Your task to perform on an android device: set the timer Image 0: 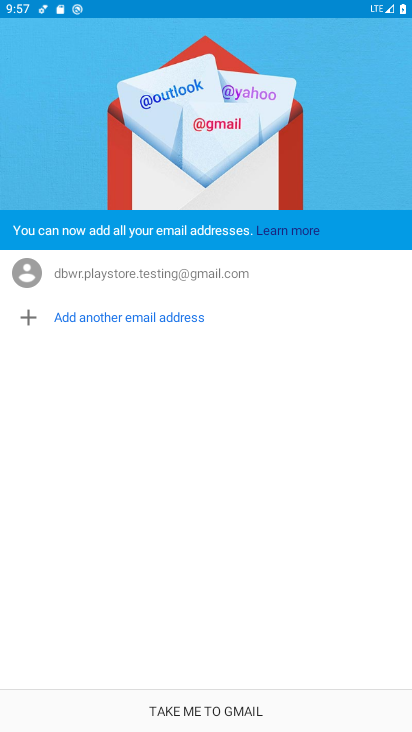
Step 0: press home button
Your task to perform on an android device: set the timer Image 1: 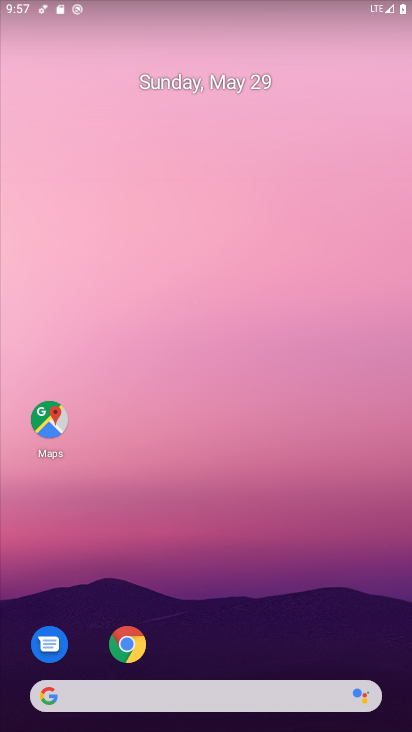
Step 1: drag from (138, 731) to (125, 58)
Your task to perform on an android device: set the timer Image 2: 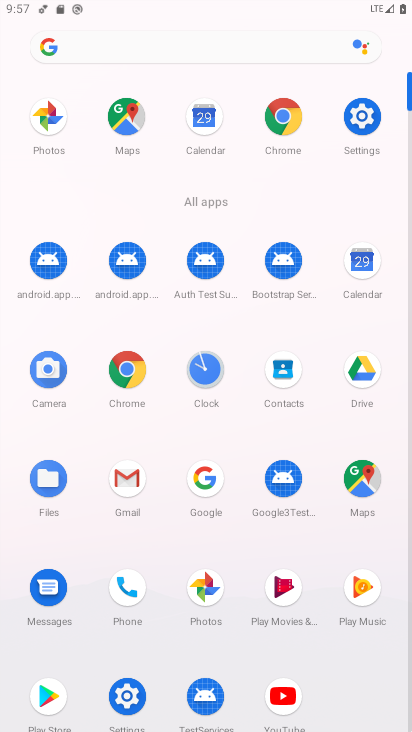
Step 2: click (198, 365)
Your task to perform on an android device: set the timer Image 3: 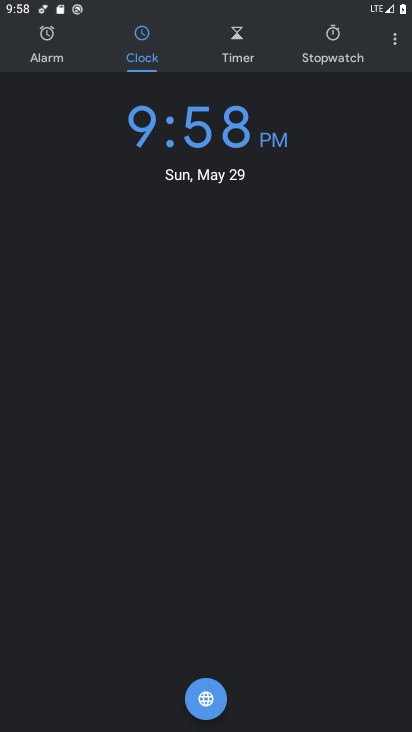
Step 3: click (243, 59)
Your task to perform on an android device: set the timer Image 4: 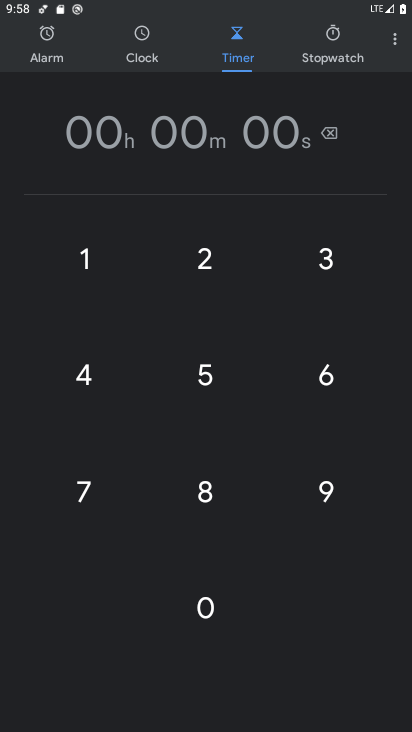
Step 4: click (91, 501)
Your task to perform on an android device: set the timer Image 5: 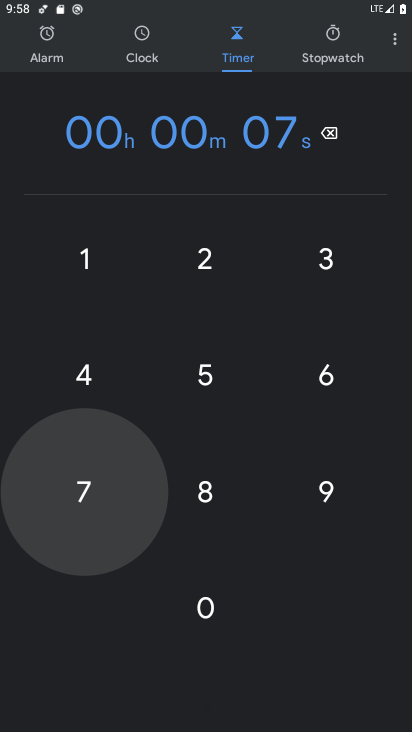
Step 5: click (201, 598)
Your task to perform on an android device: set the timer Image 6: 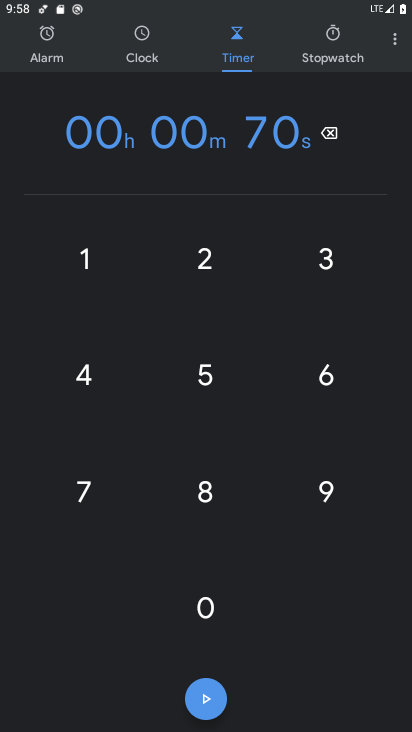
Step 6: click (197, 700)
Your task to perform on an android device: set the timer Image 7: 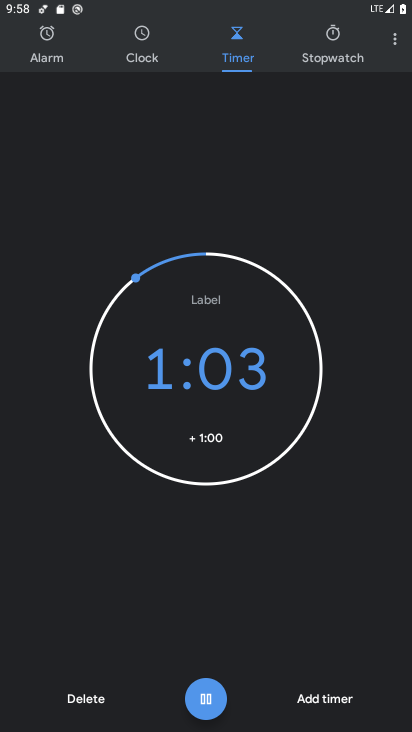
Step 7: click (218, 716)
Your task to perform on an android device: set the timer Image 8: 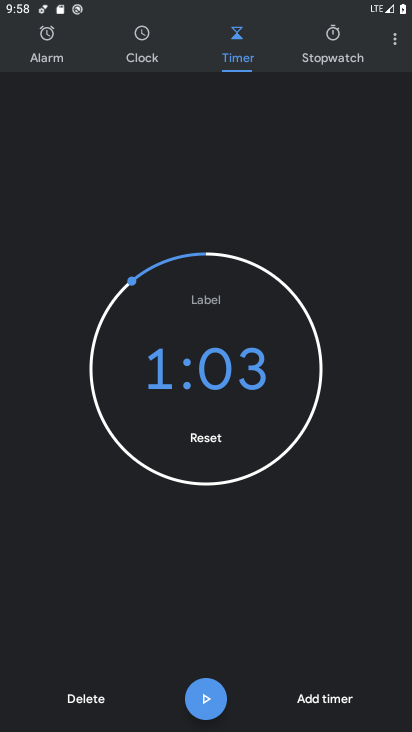
Step 8: task complete